Your task to perform on an android device: turn on translation in the chrome app Image 0: 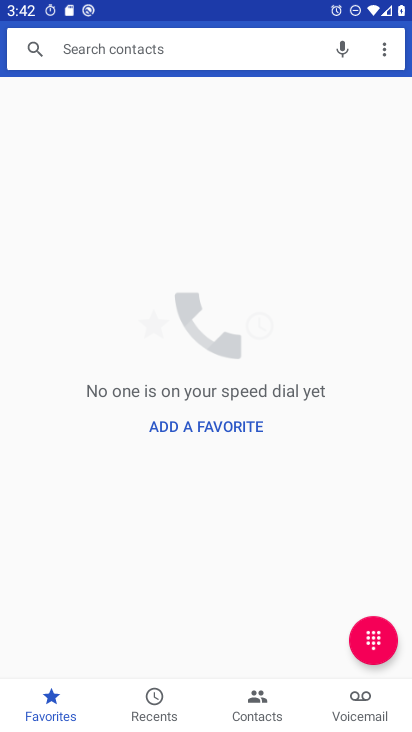
Step 0: press home button
Your task to perform on an android device: turn on translation in the chrome app Image 1: 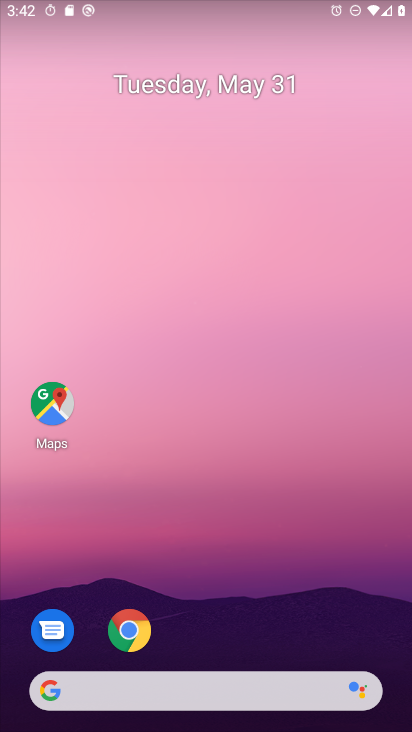
Step 1: drag from (292, 666) to (335, 16)
Your task to perform on an android device: turn on translation in the chrome app Image 2: 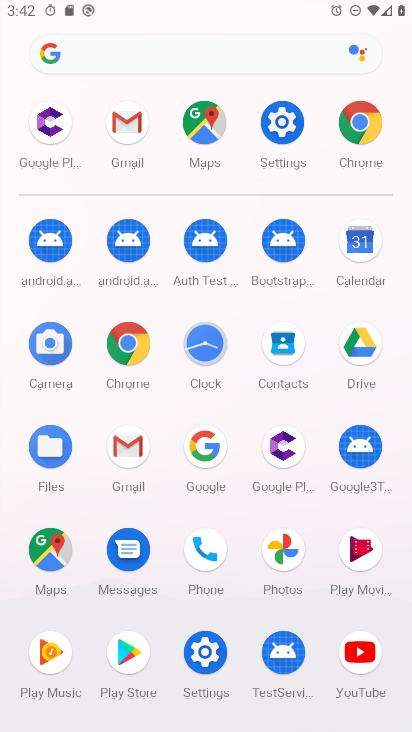
Step 2: click (129, 360)
Your task to perform on an android device: turn on translation in the chrome app Image 3: 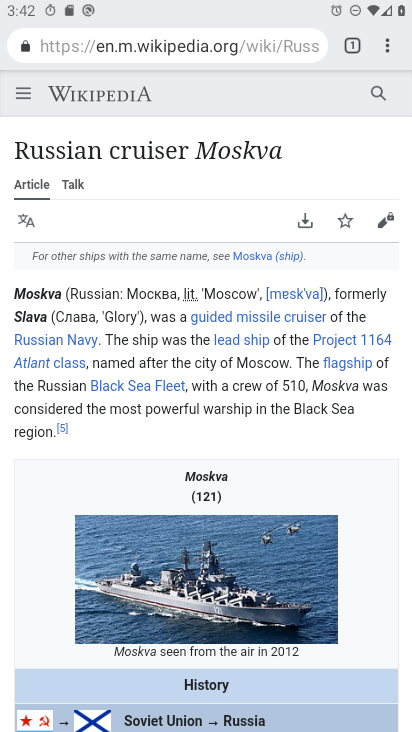
Step 3: drag from (386, 46) to (248, 547)
Your task to perform on an android device: turn on translation in the chrome app Image 4: 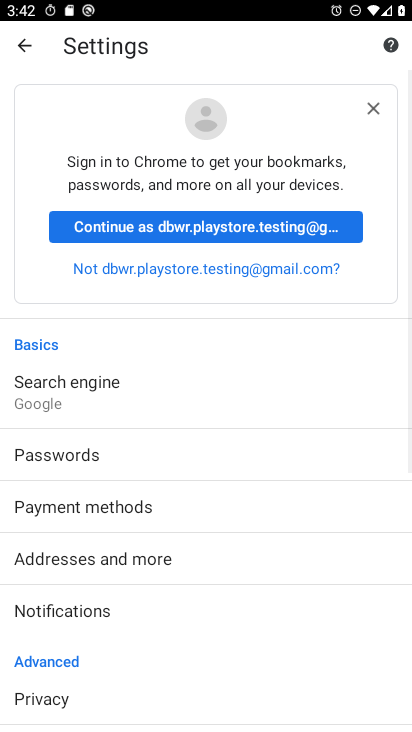
Step 4: drag from (144, 622) to (193, 140)
Your task to perform on an android device: turn on translation in the chrome app Image 5: 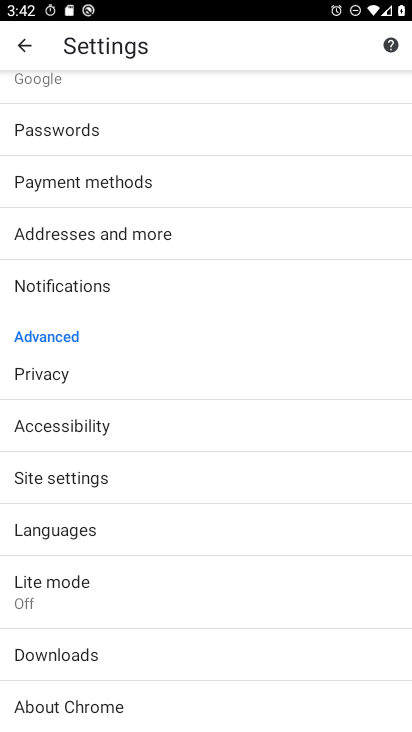
Step 5: click (97, 534)
Your task to perform on an android device: turn on translation in the chrome app Image 6: 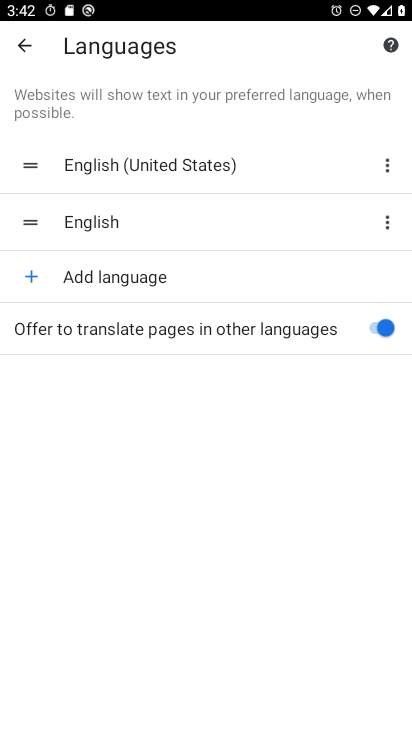
Step 6: task complete